Your task to perform on an android device: toggle data saver in the chrome app Image 0: 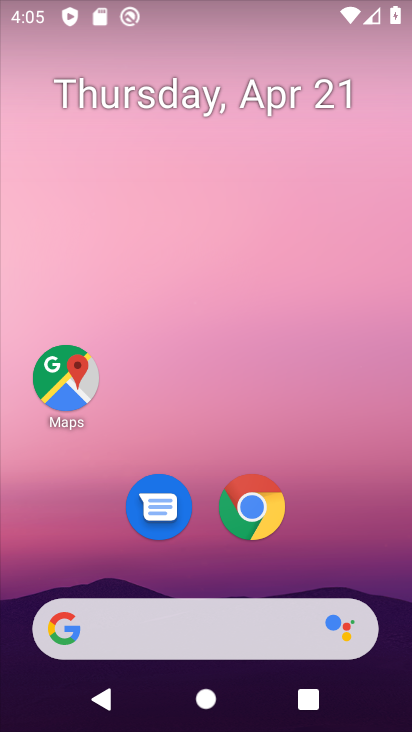
Step 0: click (265, 502)
Your task to perform on an android device: toggle data saver in the chrome app Image 1: 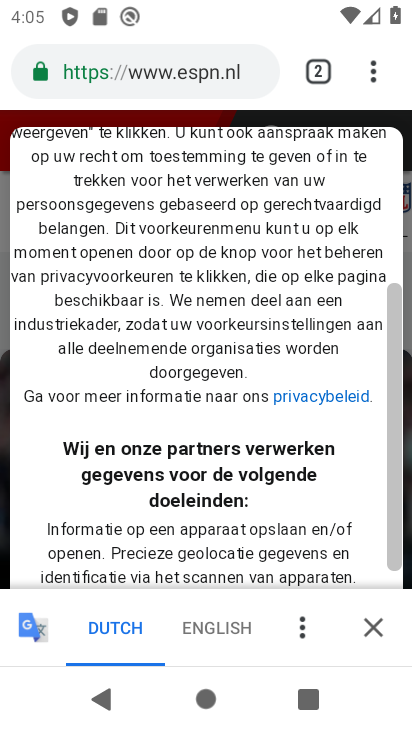
Step 1: click (372, 94)
Your task to perform on an android device: toggle data saver in the chrome app Image 2: 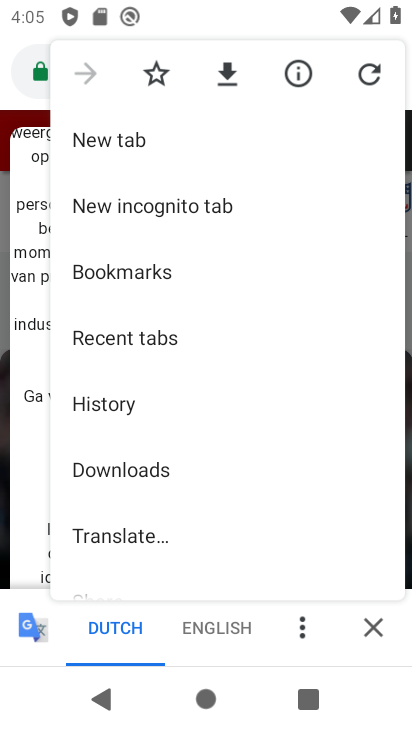
Step 2: drag from (314, 568) to (340, 252)
Your task to perform on an android device: toggle data saver in the chrome app Image 3: 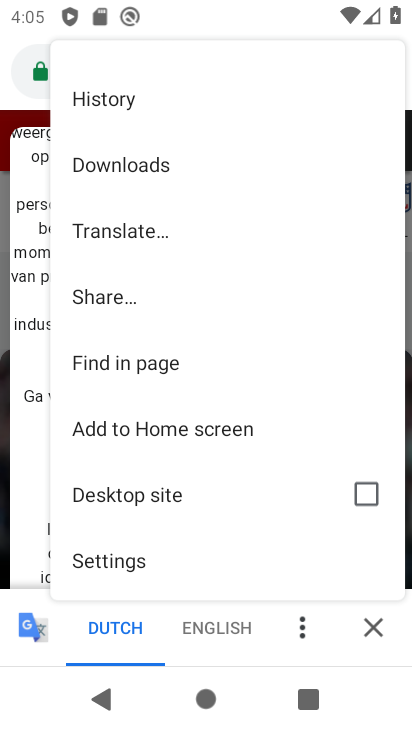
Step 3: click (188, 572)
Your task to perform on an android device: toggle data saver in the chrome app Image 4: 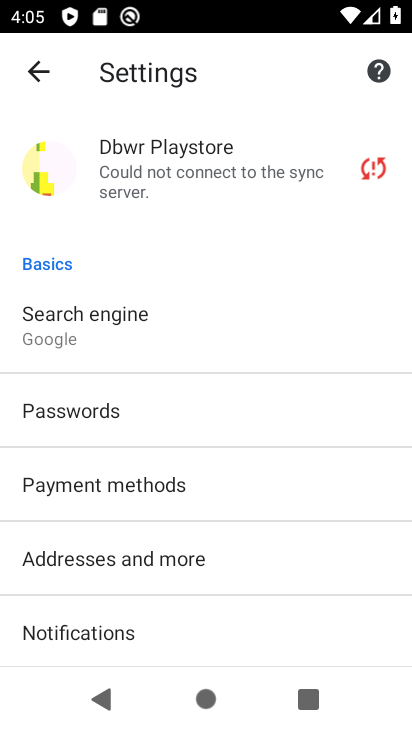
Step 4: drag from (234, 649) to (242, 240)
Your task to perform on an android device: toggle data saver in the chrome app Image 5: 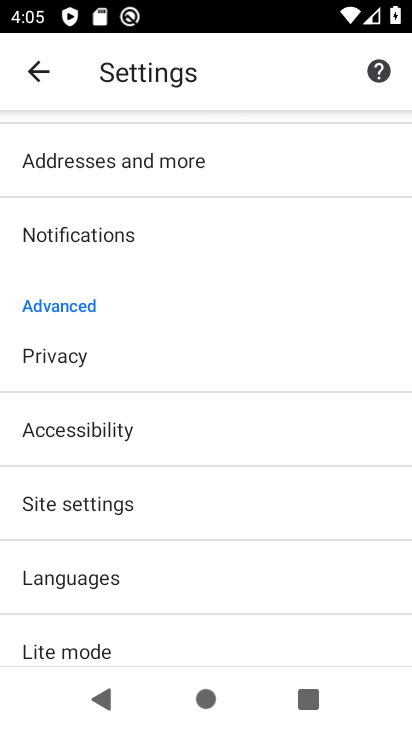
Step 5: click (196, 640)
Your task to perform on an android device: toggle data saver in the chrome app Image 6: 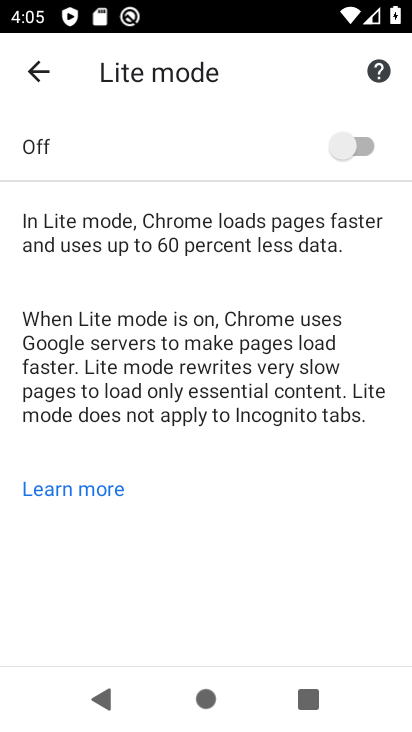
Step 6: click (366, 162)
Your task to perform on an android device: toggle data saver in the chrome app Image 7: 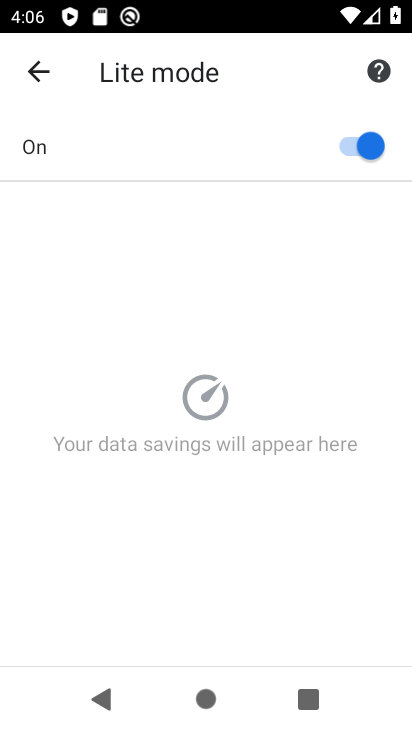
Step 7: task complete